Your task to perform on an android device: Add "razer nari" to the cart on costco.com Image 0: 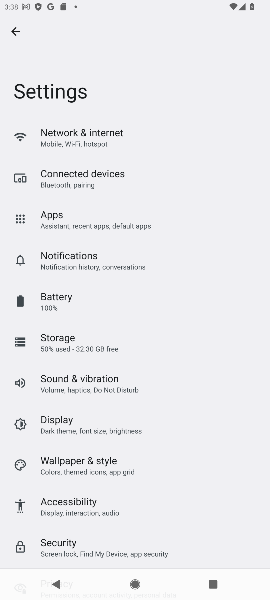
Step 0: press home button
Your task to perform on an android device: Add "razer nari" to the cart on costco.com Image 1: 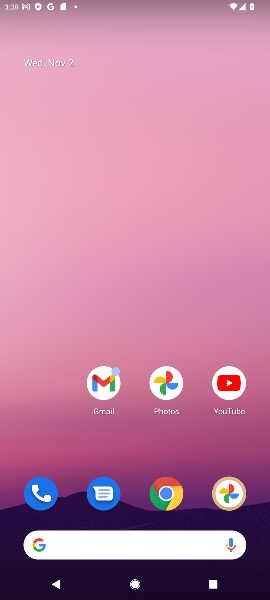
Step 1: drag from (98, 513) to (134, 162)
Your task to perform on an android device: Add "razer nari" to the cart on costco.com Image 2: 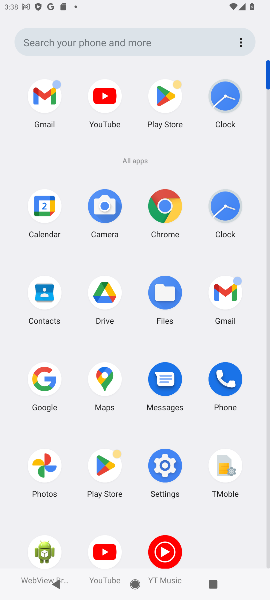
Step 2: click (45, 376)
Your task to perform on an android device: Add "razer nari" to the cart on costco.com Image 3: 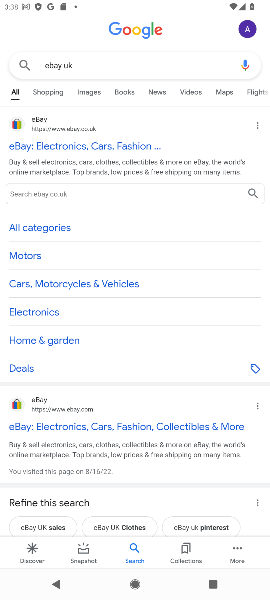
Step 3: click (125, 57)
Your task to perform on an android device: Add "razer nari" to the cart on costco.com Image 4: 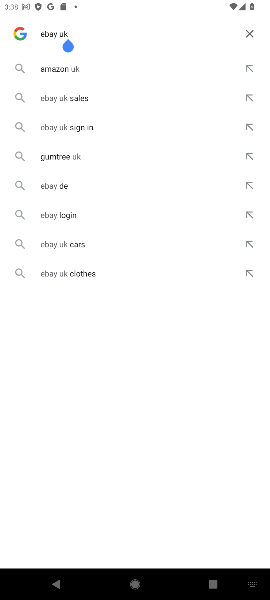
Step 4: click (249, 30)
Your task to perform on an android device: Add "razer nari" to the cart on costco.com Image 5: 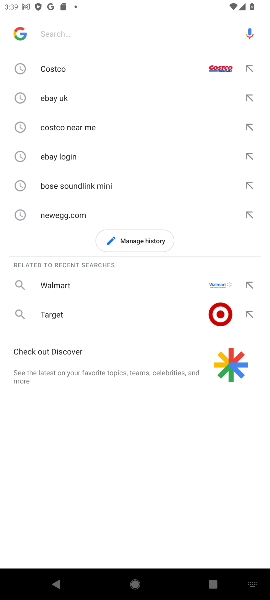
Step 5: click (70, 24)
Your task to perform on an android device: Add "razer nari" to the cart on costco.com Image 6: 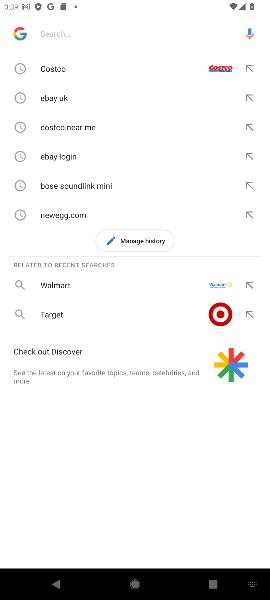
Step 6: click (85, 33)
Your task to perform on an android device: Add "razer nari" to the cart on costco.com Image 7: 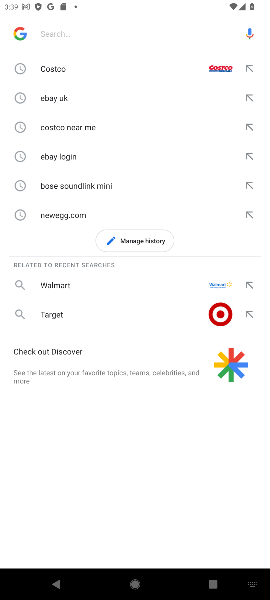
Step 7: type "costco "
Your task to perform on an android device: Add "razer nari" to the cart on costco.com Image 8: 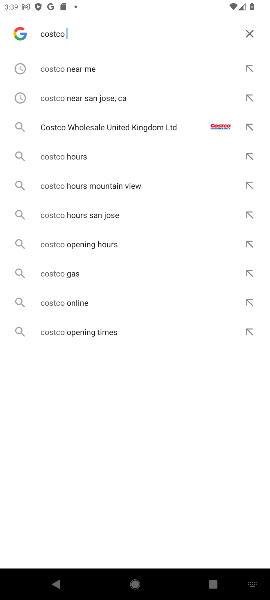
Step 8: click (44, 70)
Your task to perform on an android device: Add "razer nari" to the cart on costco.com Image 9: 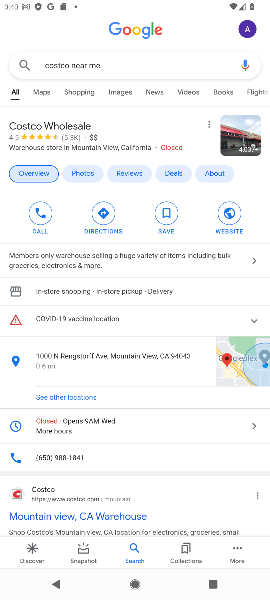
Step 9: drag from (81, 474) to (105, 306)
Your task to perform on an android device: Add "razer nari" to the cart on costco.com Image 10: 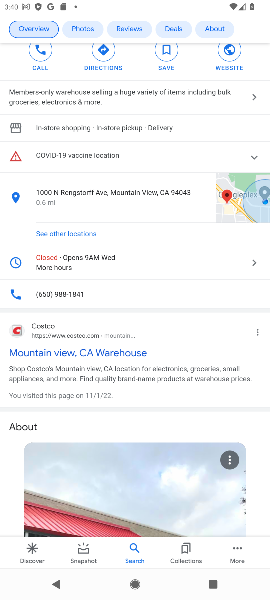
Step 10: click (19, 326)
Your task to perform on an android device: Add "razer nari" to the cart on costco.com Image 11: 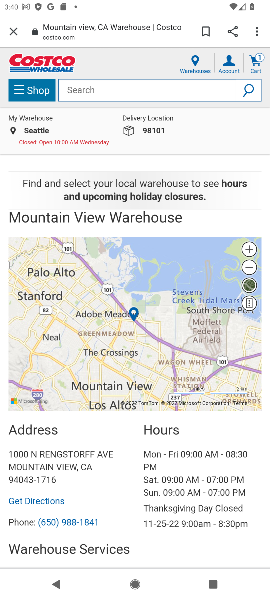
Step 11: click (112, 85)
Your task to perform on an android device: Add "razer nari" to the cart on costco.com Image 12: 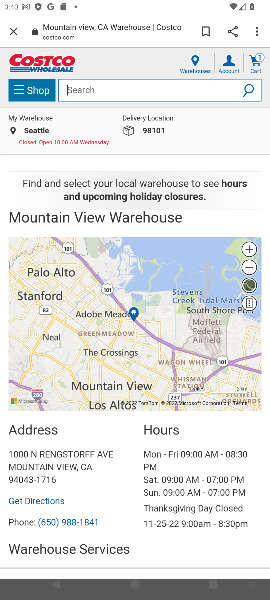
Step 12: click (112, 85)
Your task to perform on an android device: Add "razer nari" to the cart on costco.com Image 13: 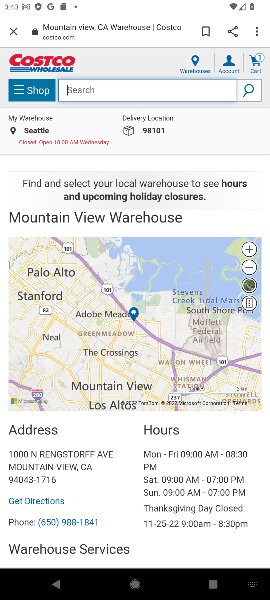
Step 13: type "razer nari "
Your task to perform on an android device: Add "razer nari" to the cart on costco.com Image 14: 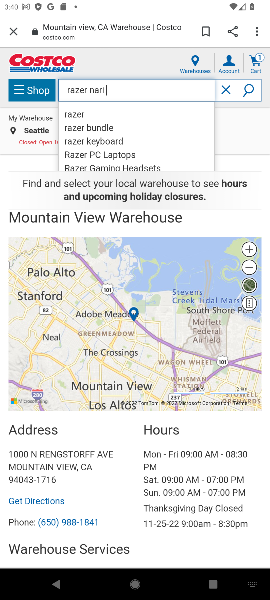
Step 14: click (75, 117)
Your task to perform on an android device: Add "razer nari" to the cart on costco.com Image 15: 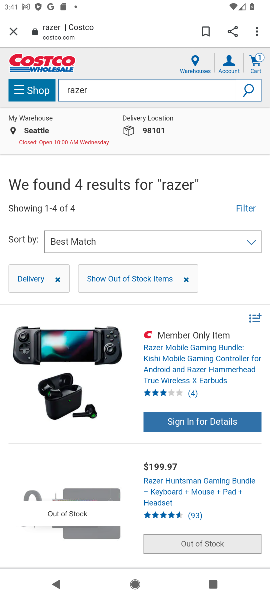
Step 15: drag from (123, 464) to (150, 302)
Your task to perform on an android device: Add "razer nari" to the cart on costco.com Image 16: 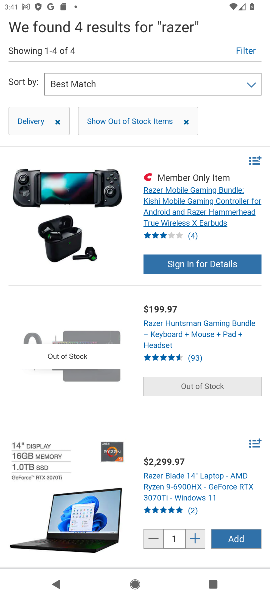
Step 16: drag from (105, 513) to (125, 363)
Your task to perform on an android device: Add "razer nari" to the cart on costco.com Image 17: 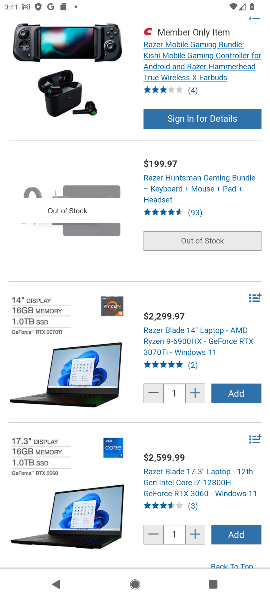
Step 17: click (237, 389)
Your task to perform on an android device: Add "razer nari" to the cart on costco.com Image 18: 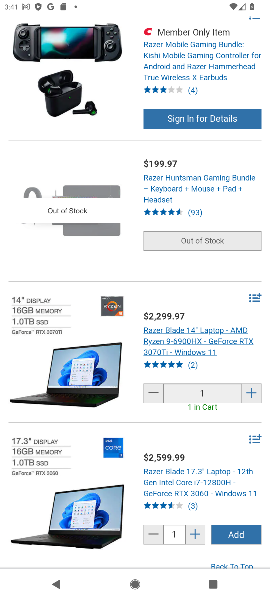
Step 18: task complete